Your task to perform on an android device: choose inbox layout in the gmail app Image 0: 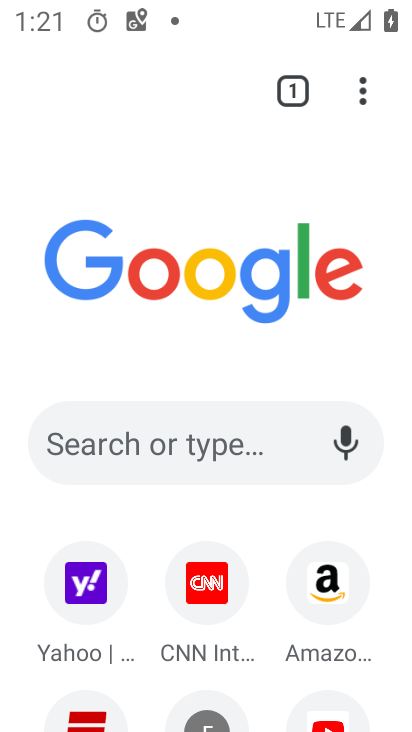
Step 0: press home button
Your task to perform on an android device: choose inbox layout in the gmail app Image 1: 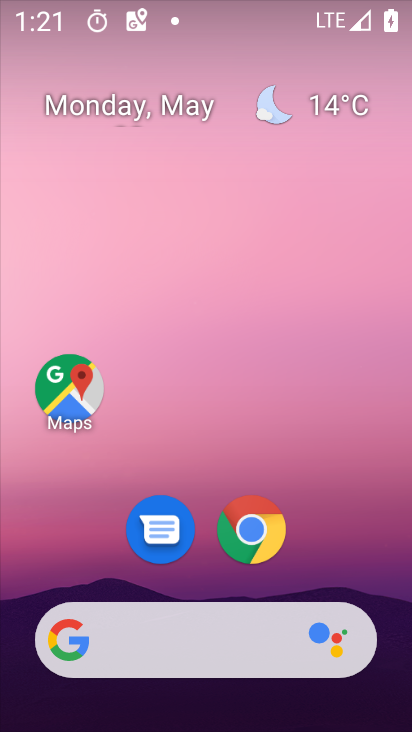
Step 1: drag from (392, 552) to (368, 133)
Your task to perform on an android device: choose inbox layout in the gmail app Image 2: 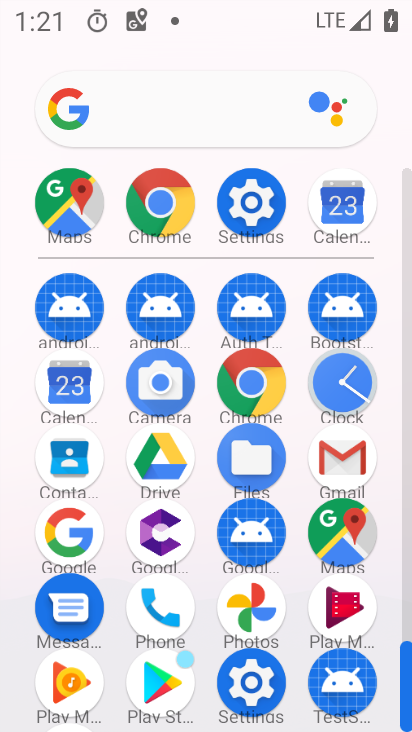
Step 2: click (342, 462)
Your task to perform on an android device: choose inbox layout in the gmail app Image 3: 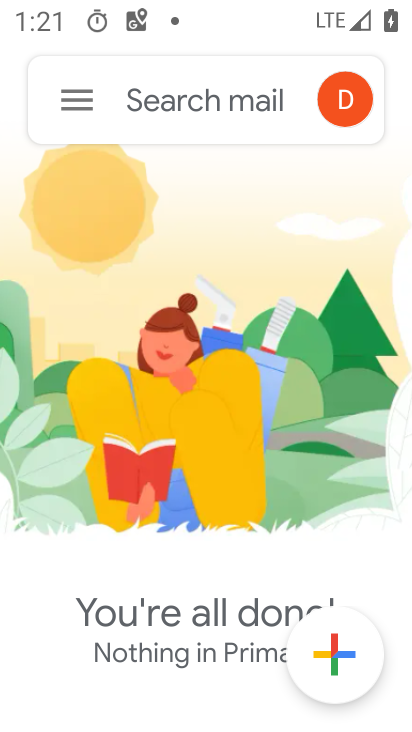
Step 3: click (82, 100)
Your task to perform on an android device: choose inbox layout in the gmail app Image 4: 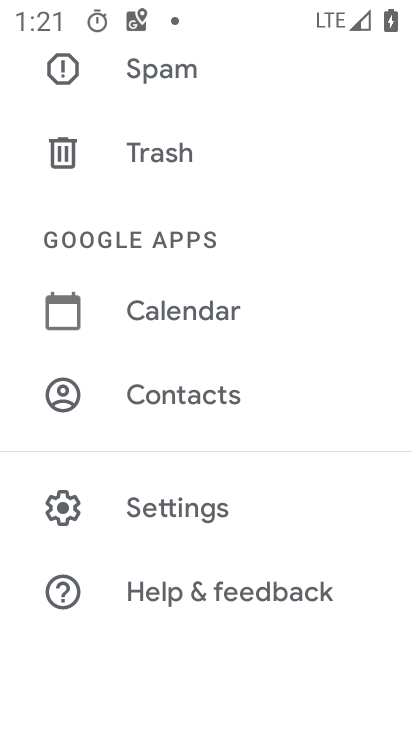
Step 4: click (224, 529)
Your task to perform on an android device: choose inbox layout in the gmail app Image 5: 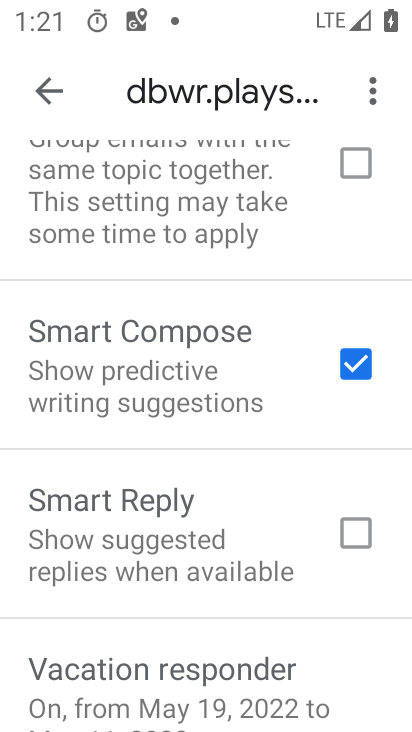
Step 5: drag from (292, 265) to (287, 360)
Your task to perform on an android device: choose inbox layout in the gmail app Image 6: 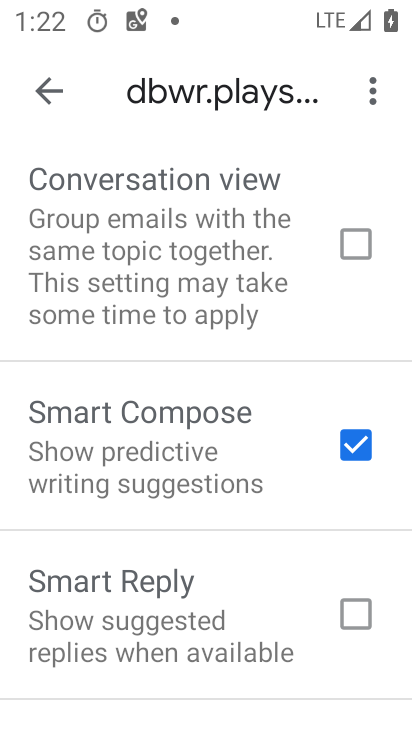
Step 6: drag from (295, 222) to (297, 338)
Your task to perform on an android device: choose inbox layout in the gmail app Image 7: 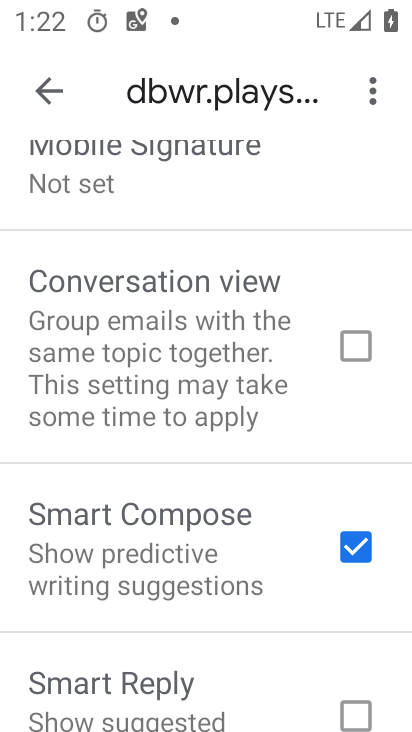
Step 7: drag from (299, 227) to (293, 318)
Your task to perform on an android device: choose inbox layout in the gmail app Image 8: 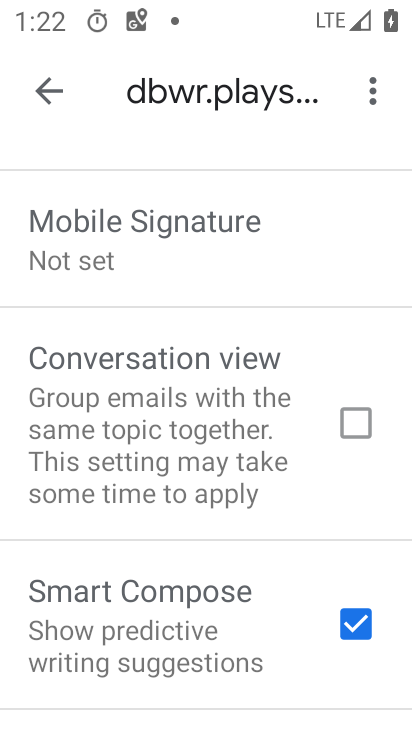
Step 8: drag from (288, 185) to (275, 291)
Your task to perform on an android device: choose inbox layout in the gmail app Image 9: 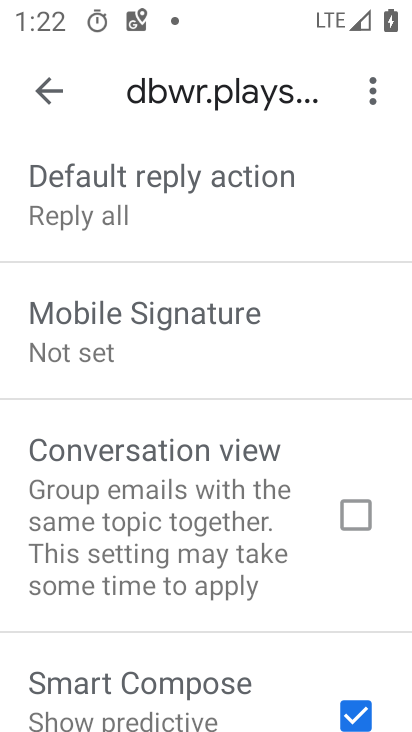
Step 9: drag from (321, 172) to (329, 275)
Your task to perform on an android device: choose inbox layout in the gmail app Image 10: 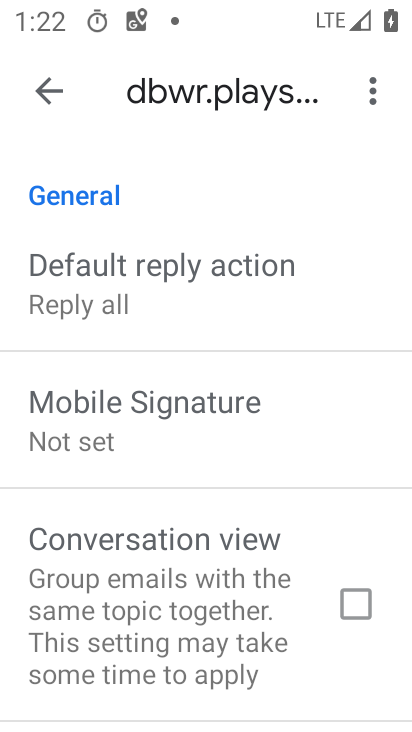
Step 10: drag from (312, 185) to (306, 305)
Your task to perform on an android device: choose inbox layout in the gmail app Image 11: 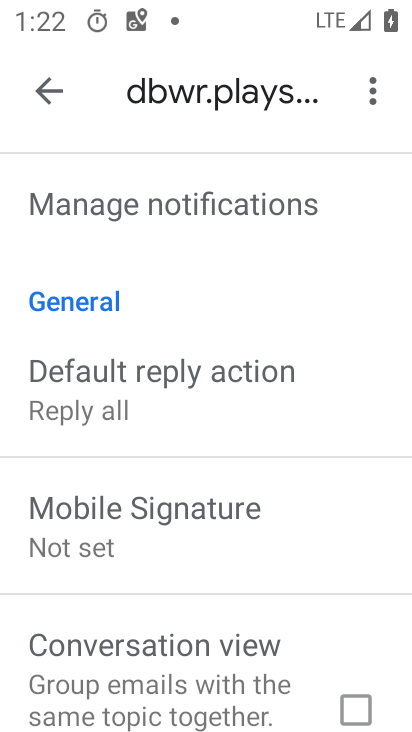
Step 11: drag from (306, 166) to (301, 292)
Your task to perform on an android device: choose inbox layout in the gmail app Image 12: 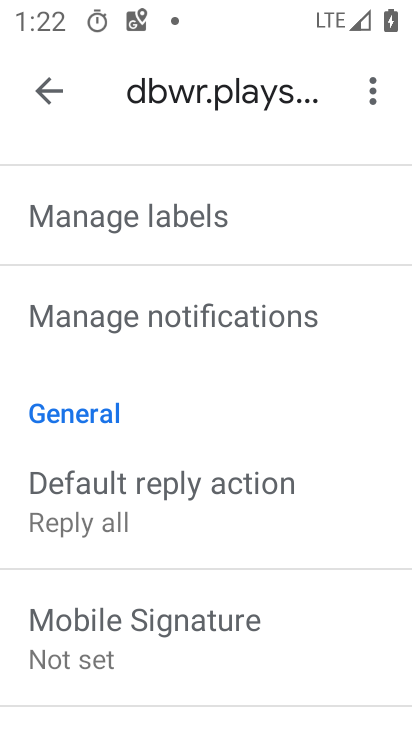
Step 12: drag from (297, 193) to (281, 291)
Your task to perform on an android device: choose inbox layout in the gmail app Image 13: 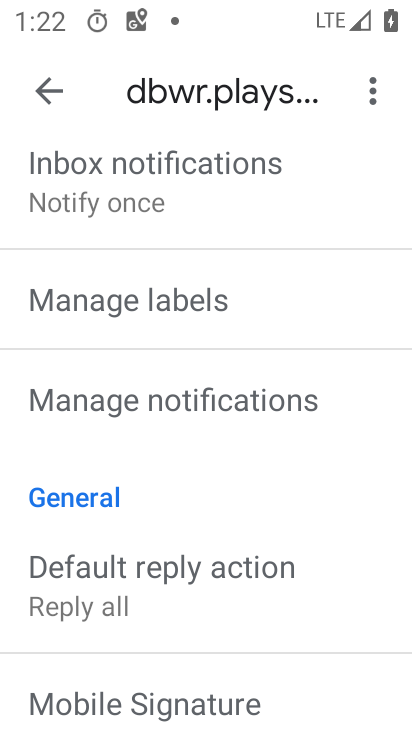
Step 13: drag from (302, 156) to (287, 289)
Your task to perform on an android device: choose inbox layout in the gmail app Image 14: 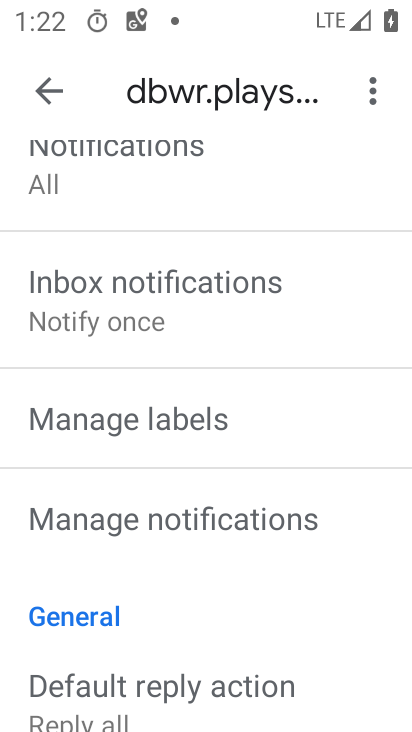
Step 14: drag from (286, 160) to (272, 276)
Your task to perform on an android device: choose inbox layout in the gmail app Image 15: 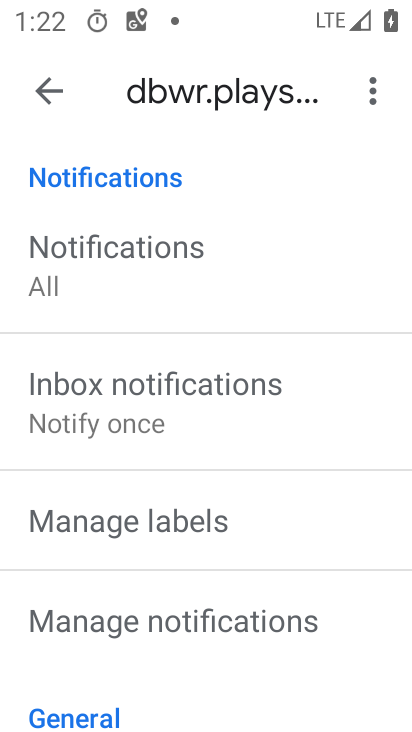
Step 15: drag from (292, 190) to (272, 331)
Your task to perform on an android device: choose inbox layout in the gmail app Image 16: 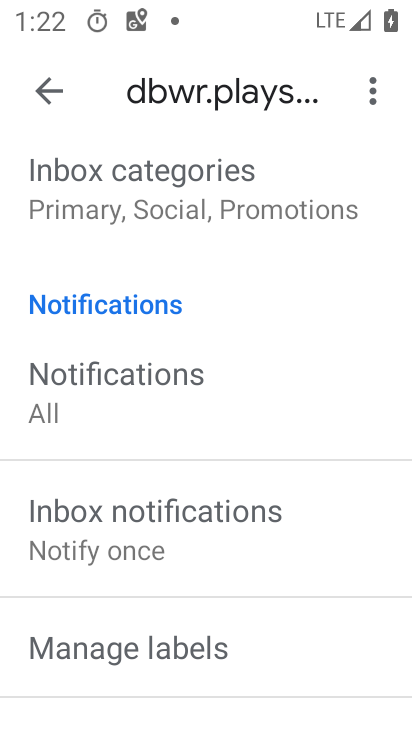
Step 16: drag from (284, 173) to (264, 305)
Your task to perform on an android device: choose inbox layout in the gmail app Image 17: 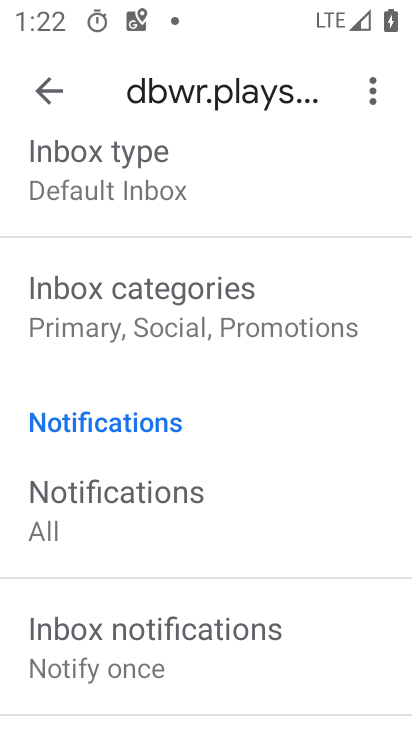
Step 17: drag from (264, 165) to (255, 265)
Your task to perform on an android device: choose inbox layout in the gmail app Image 18: 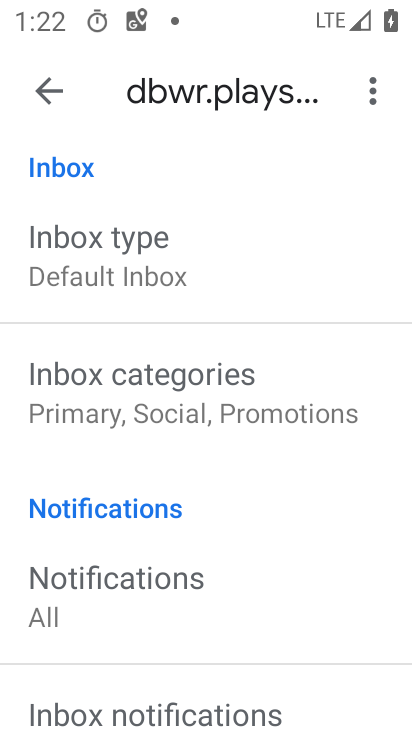
Step 18: click (145, 270)
Your task to perform on an android device: choose inbox layout in the gmail app Image 19: 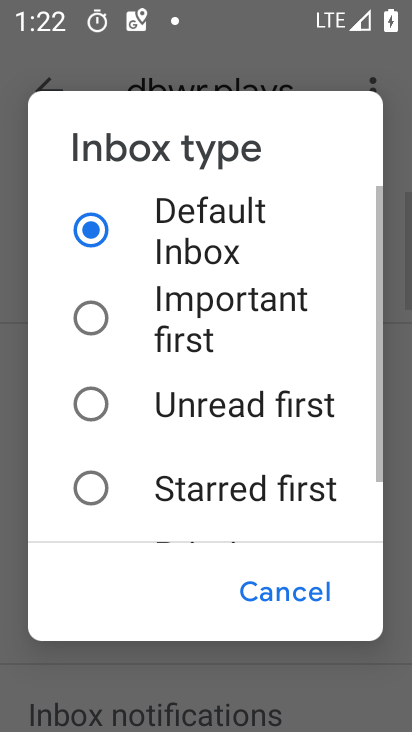
Step 19: click (206, 301)
Your task to perform on an android device: choose inbox layout in the gmail app Image 20: 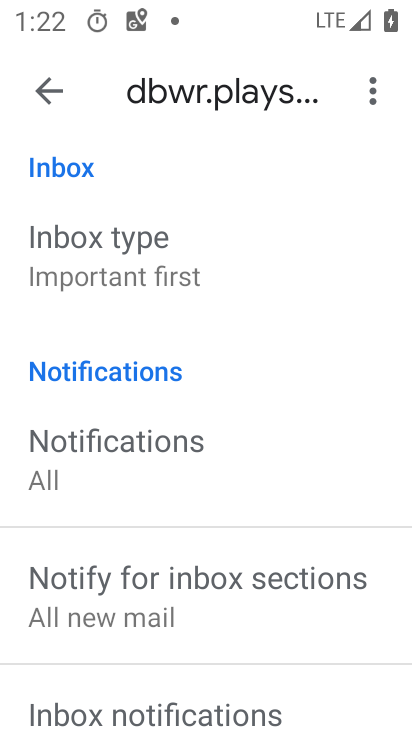
Step 20: task complete